Your task to perform on an android device: turn on javascript in the chrome app Image 0: 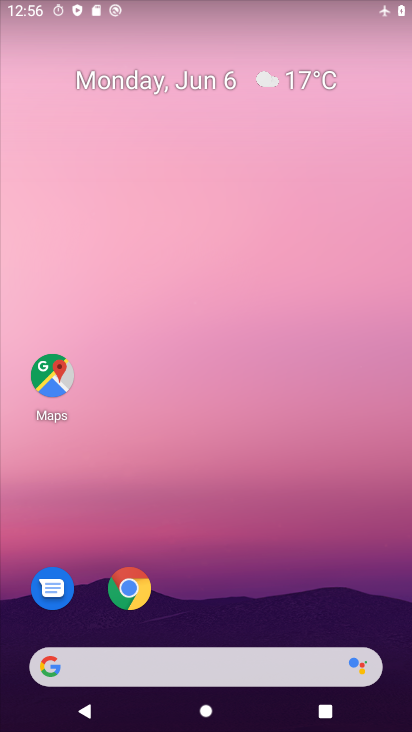
Step 0: click (130, 587)
Your task to perform on an android device: turn on javascript in the chrome app Image 1: 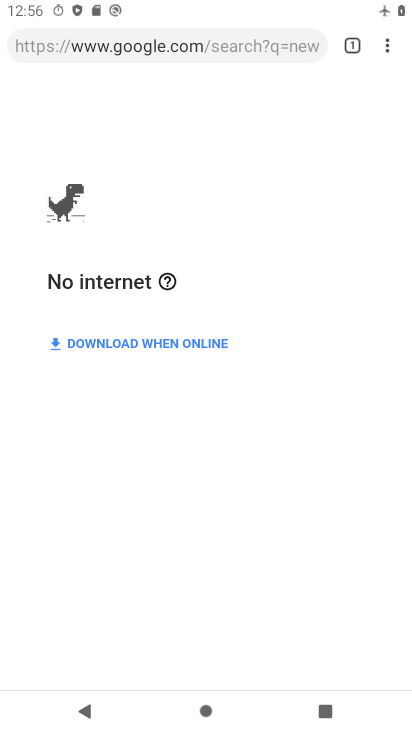
Step 1: drag from (384, 46) to (260, 516)
Your task to perform on an android device: turn on javascript in the chrome app Image 2: 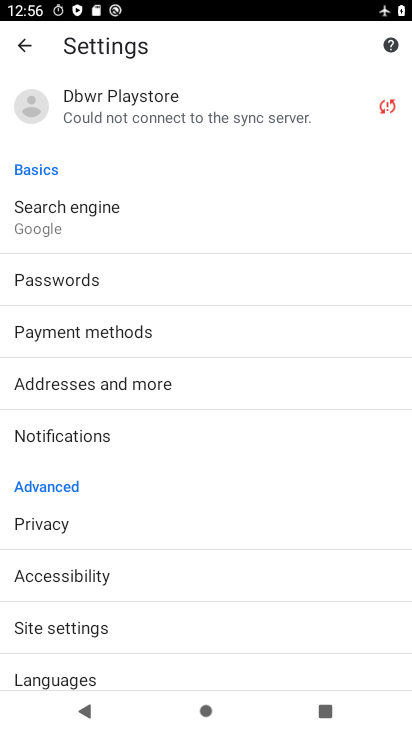
Step 2: click (114, 637)
Your task to perform on an android device: turn on javascript in the chrome app Image 3: 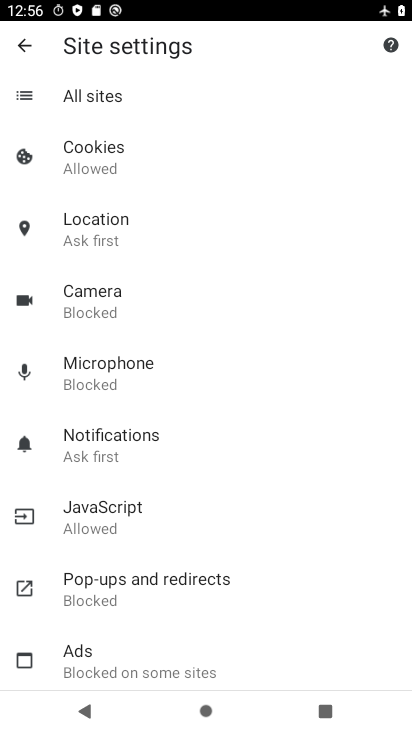
Step 3: click (201, 514)
Your task to perform on an android device: turn on javascript in the chrome app Image 4: 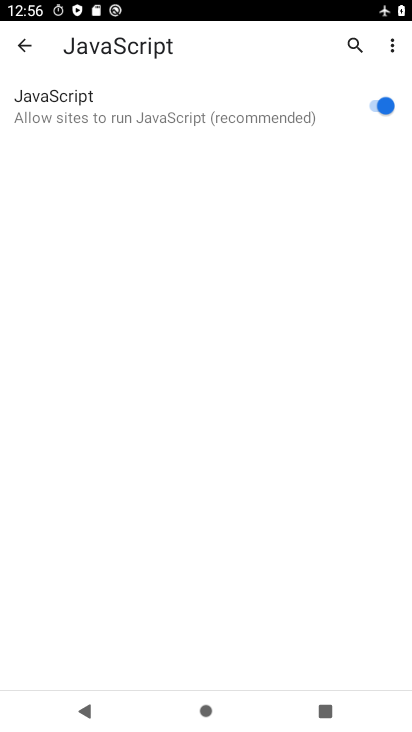
Step 4: task complete